Your task to perform on an android device: turn off wifi Image 0: 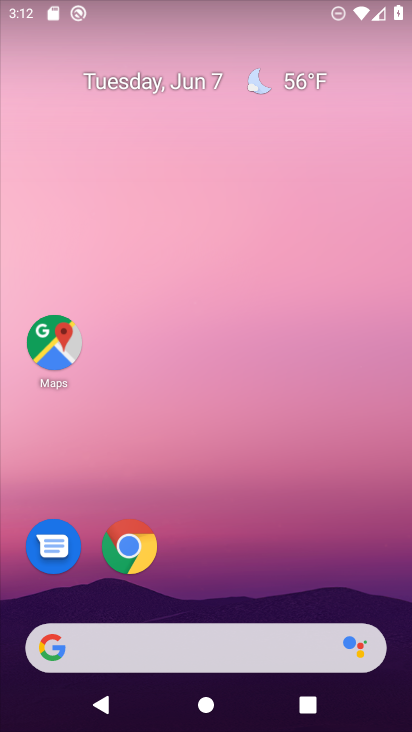
Step 0: drag from (290, 560) to (199, 6)
Your task to perform on an android device: turn off wifi Image 1: 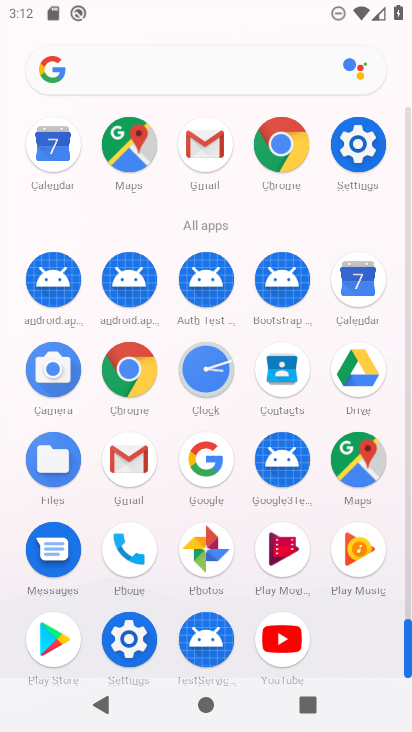
Step 1: drag from (8, 557) to (17, 237)
Your task to perform on an android device: turn off wifi Image 2: 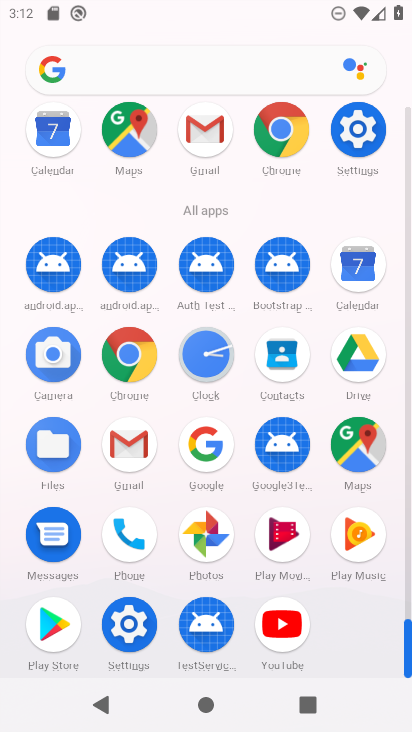
Step 2: click (130, 622)
Your task to perform on an android device: turn off wifi Image 3: 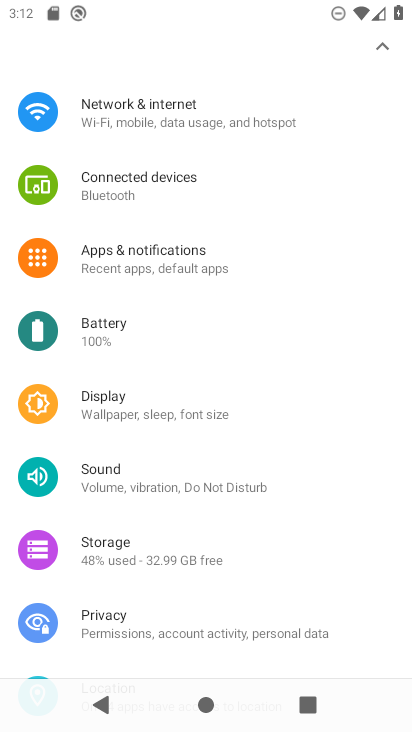
Step 3: drag from (248, 185) to (237, 586)
Your task to perform on an android device: turn off wifi Image 4: 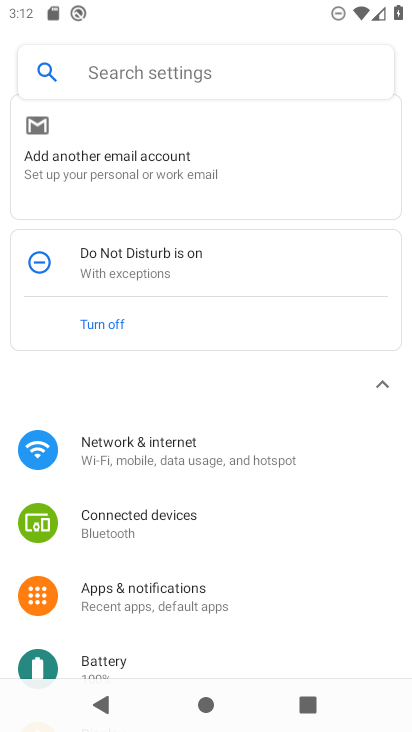
Step 4: click (181, 438)
Your task to perform on an android device: turn off wifi Image 5: 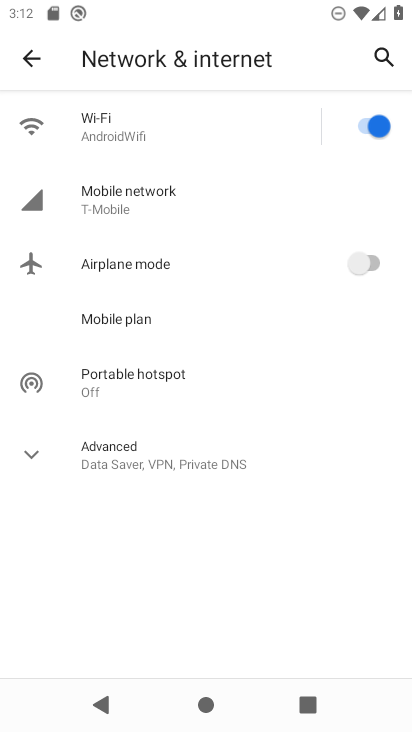
Step 5: click (45, 444)
Your task to perform on an android device: turn off wifi Image 6: 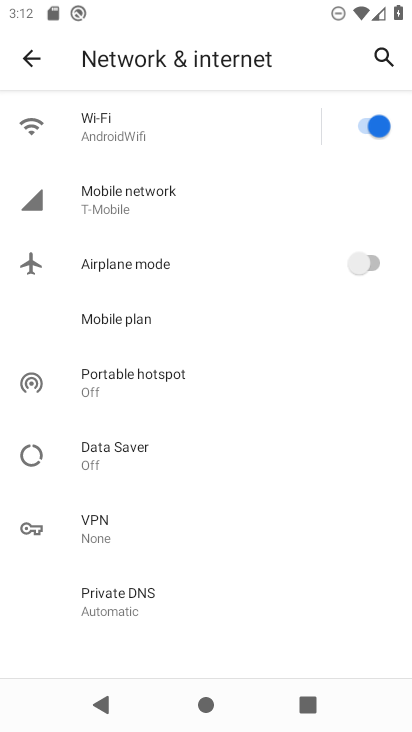
Step 6: click (370, 120)
Your task to perform on an android device: turn off wifi Image 7: 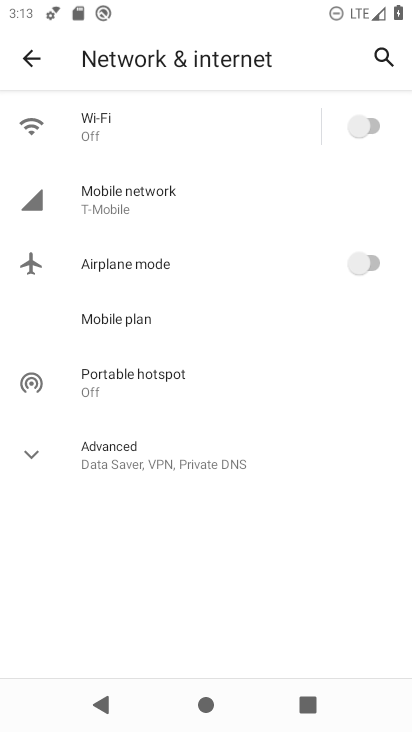
Step 7: click (39, 461)
Your task to perform on an android device: turn off wifi Image 8: 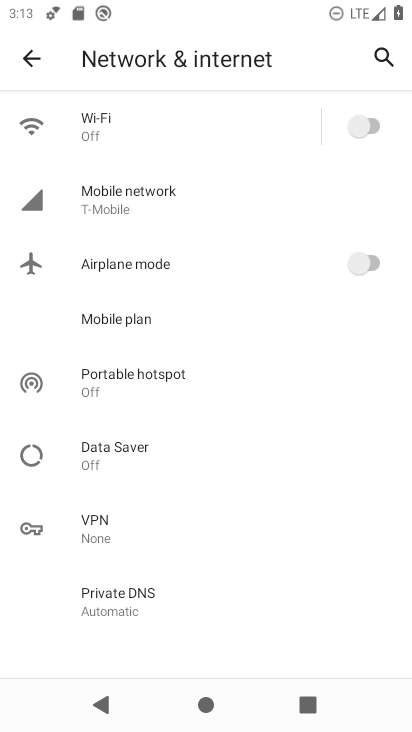
Step 8: task complete